Your task to perform on an android device: What's the weather? Image 0: 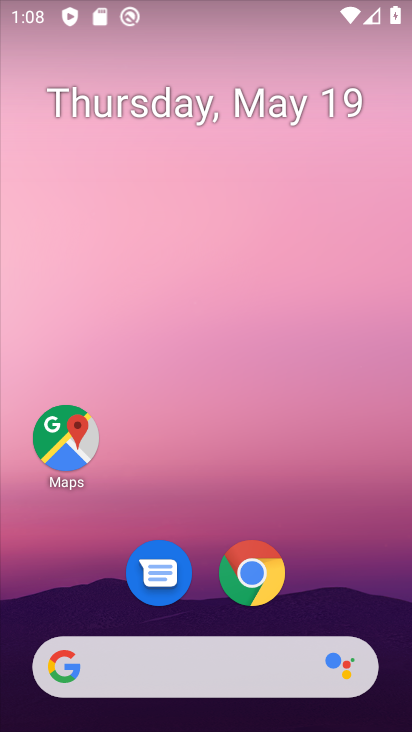
Step 0: drag from (334, 553) to (239, 3)
Your task to perform on an android device: What's the weather? Image 1: 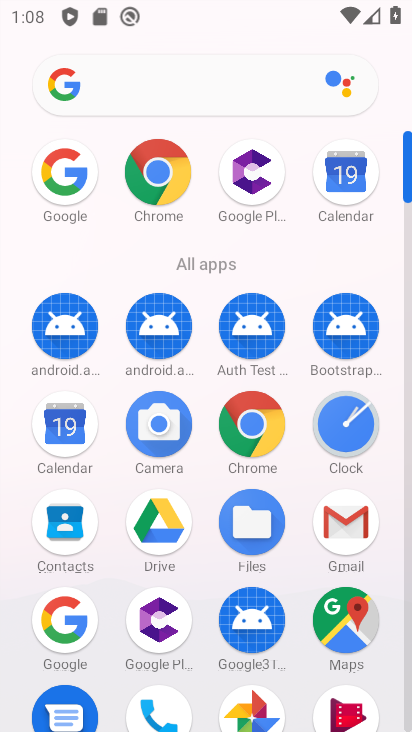
Step 1: click (154, 179)
Your task to perform on an android device: What's the weather? Image 2: 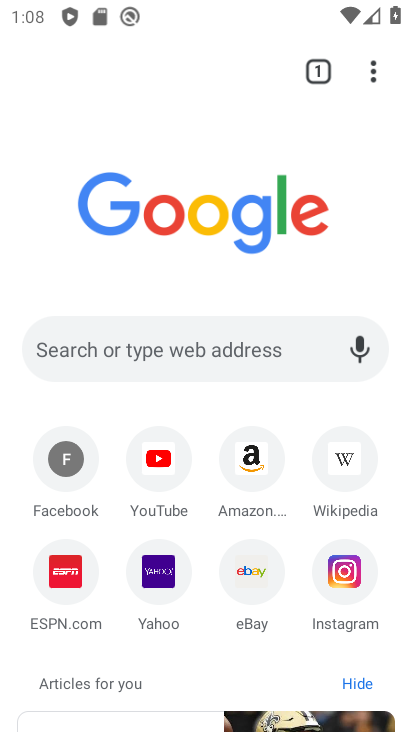
Step 2: click (127, 341)
Your task to perform on an android device: What's the weather? Image 3: 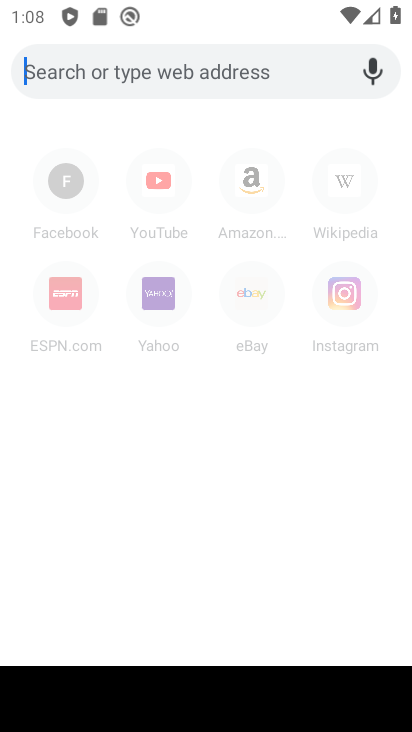
Step 3: type "What's the weather?"
Your task to perform on an android device: What's the weather? Image 4: 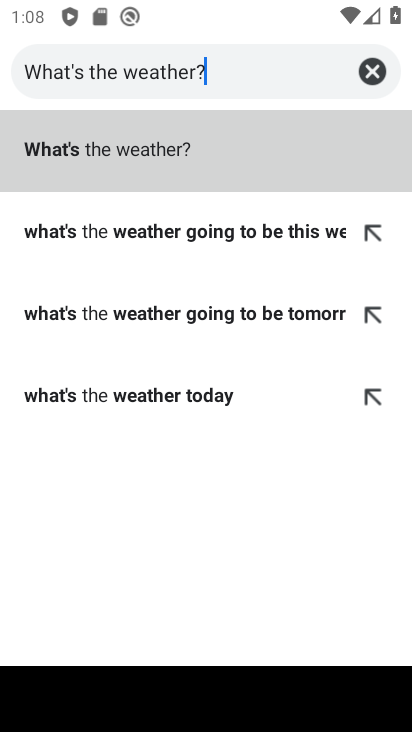
Step 4: click (159, 168)
Your task to perform on an android device: What's the weather? Image 5: 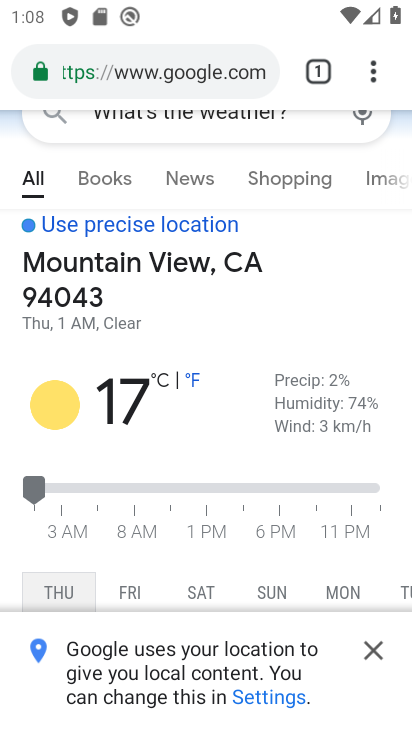
Step 5: task complete